Your task to perform on an android device: Open location settings Image 0: 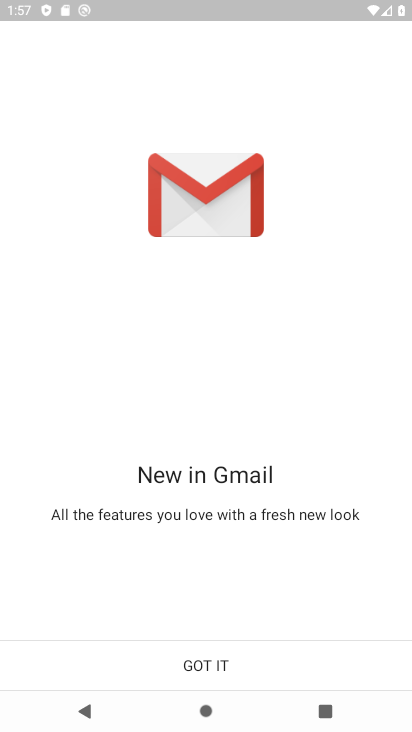
Step 0: press home button
Your task to perform on an android device: Open location settings Image 1: 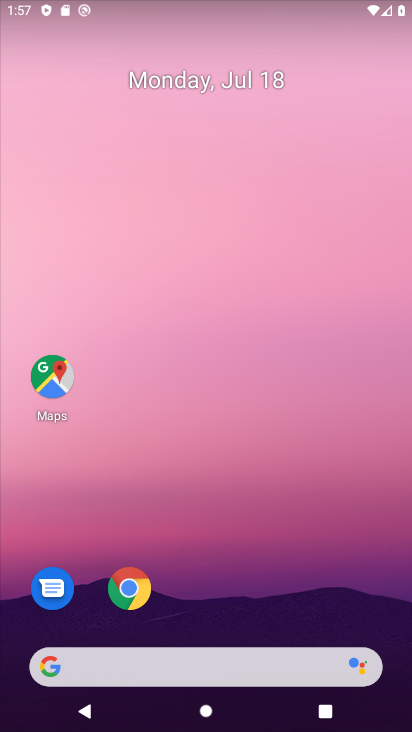
Step 1: drag from (255, 624) to (196, 84)
Your task to perform on an android device: Open location settings Image 2: 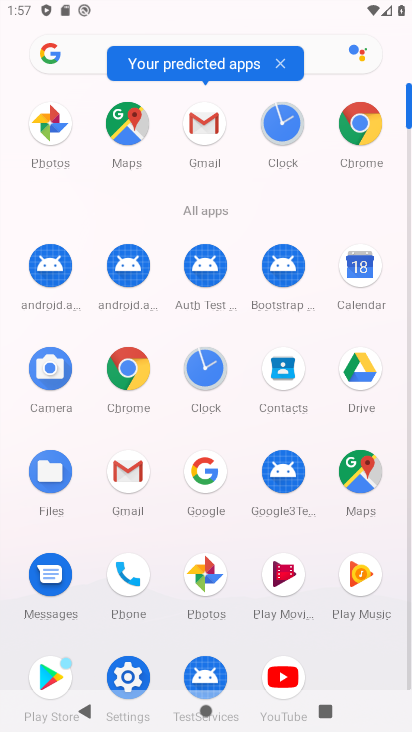
Step 2: click (126, 668)
Your task to perform on an android device: Open location settings Image 3: 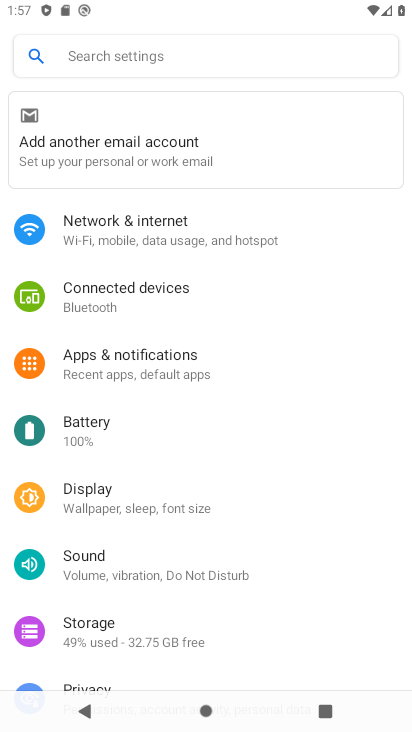
Step 3: drag from (233, 667) to (198, 331)
Your task to perform on an android device: Open location settings Image 4: 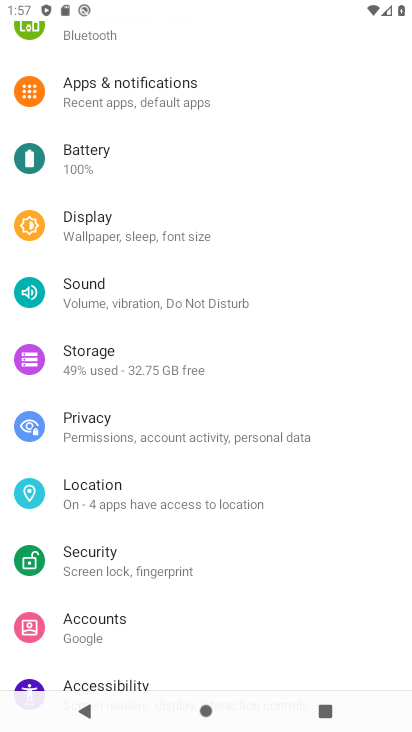
Step 4: click (186, 489)
Your task to perform on an android device: Open location settings Image 5: 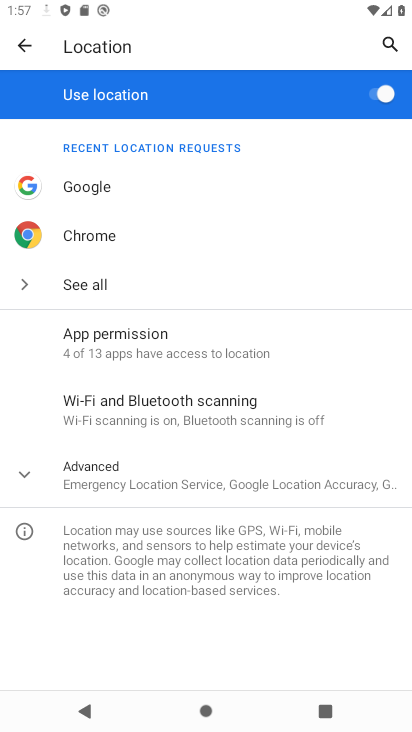
Step 5: task complete